Your task to perform on an android device: turn notification dots off Image 0: 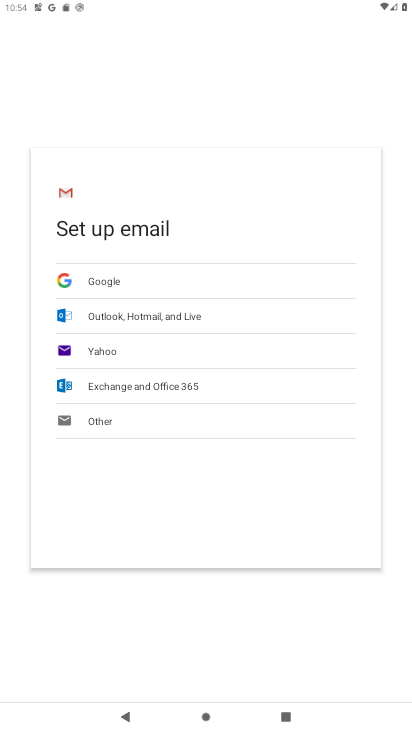
Step 0: press home button
Your task to perform on an android device: turn notification dots off Image 1: 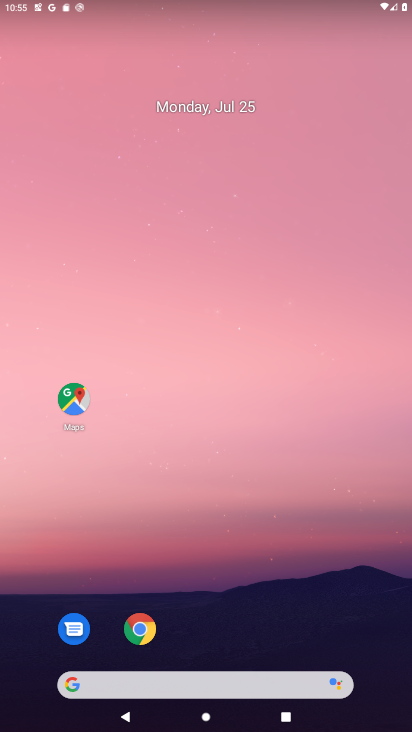
Step 1: drag from (225, 558) to (236, 19)
Your task to perform on an android device: turn notification dots off Image 2: 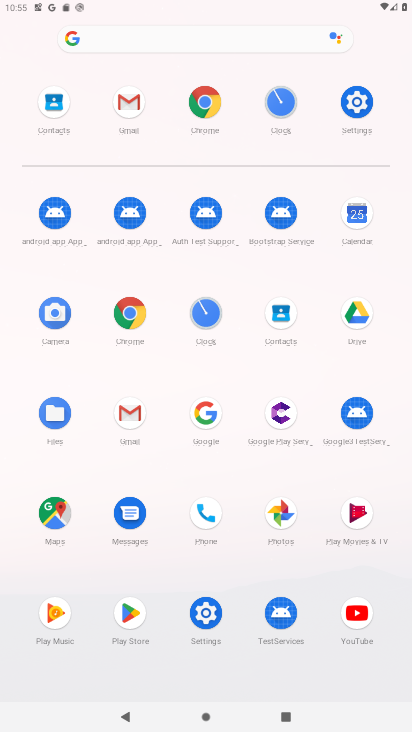
Step 2: click (353, 98)
Your task to perform on an android device: turn notification dots off Image 3: 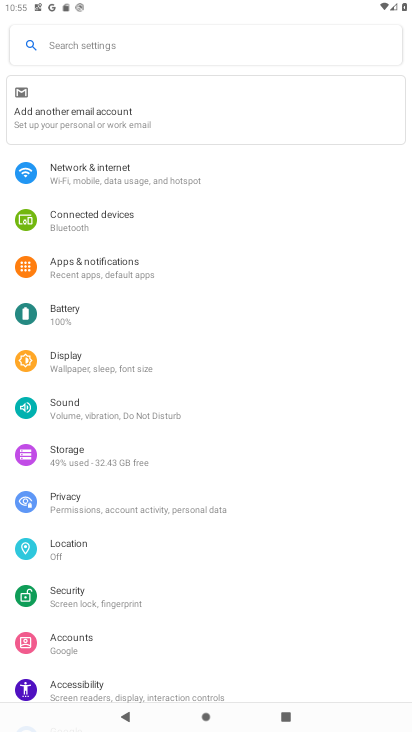
Step 3: click (112, 275)
Your task to perform on an android device: turn notification dots off Image 4: 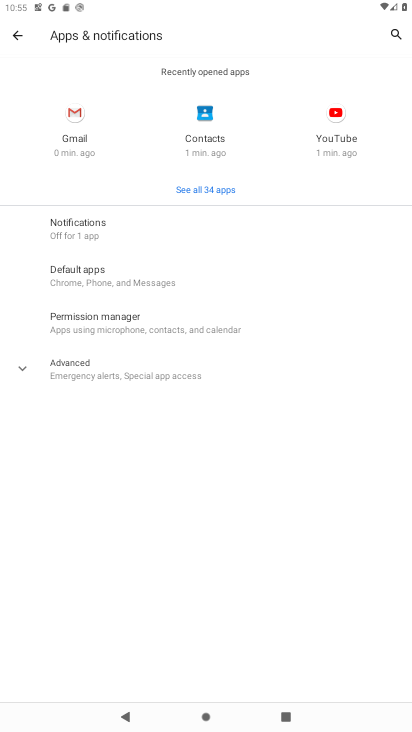
Step 4: click (111, 230)
Your task to perform on an android device: turn notification dots off Image 5: 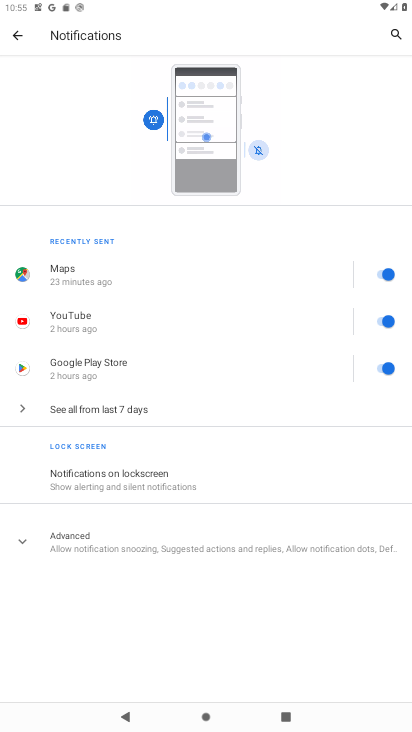
Step 5: click (150, 535)
Your task to perform on an android device: turn notification dots off Image 6: 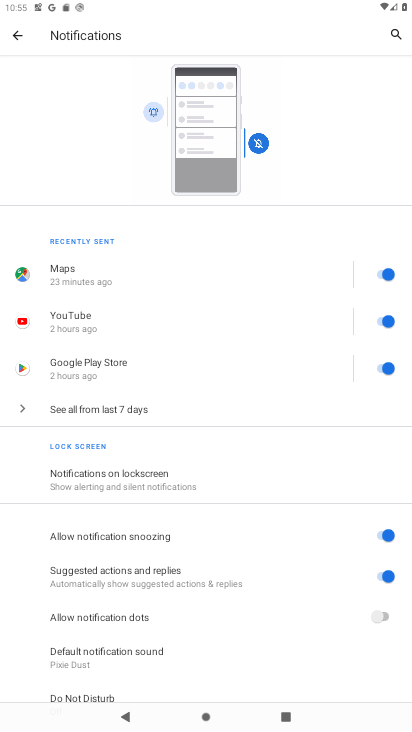
Step 6: task complete